Your task to perform on an android device: refresh tabs in the chrome app Image 0: 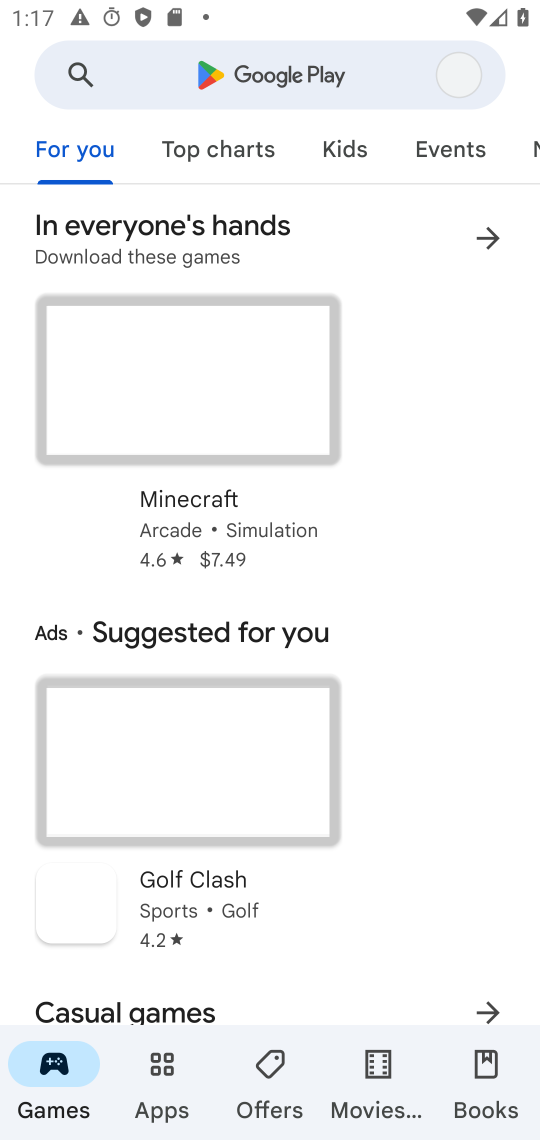
Step 0: press home button
Your task to perform on an android device: refresh tabs in the chrome app Image 1: 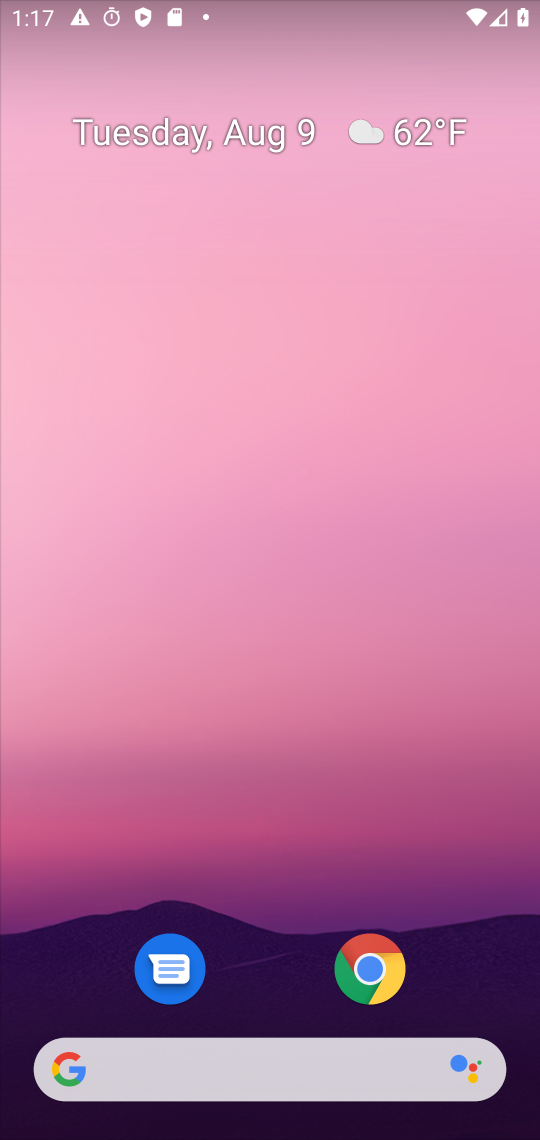
Step 1: click (381, 1009)
Your task to perform on an android device: refresh tabs in the chrome app Image 2: 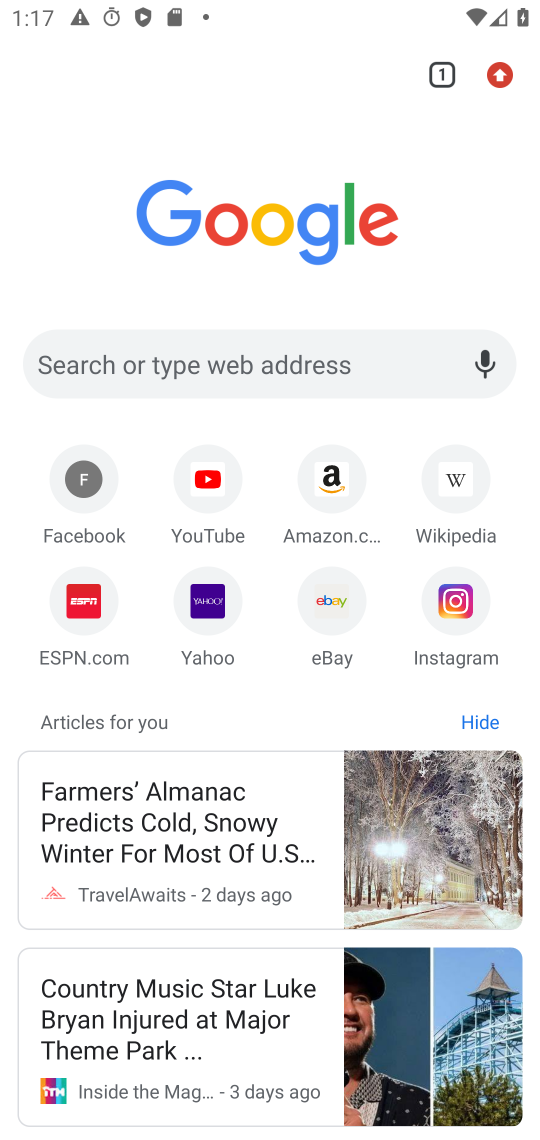
Step 2: click (496, 74)
Your task to perform on an android device: refresh tabs in the chrome app Image 3: 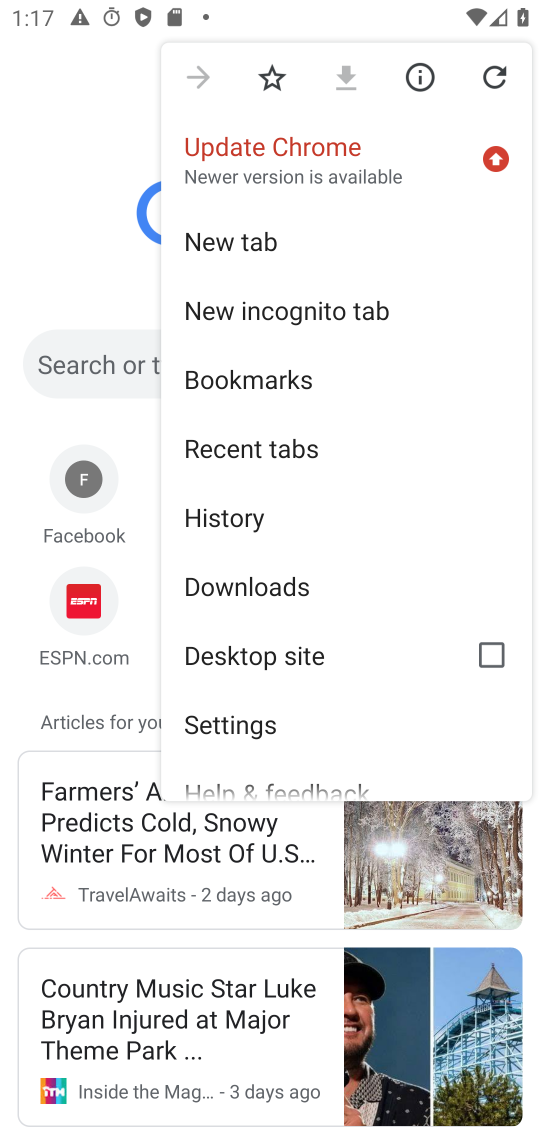
Step 3: click (492, 78)
Your task to perform on an android device: refresh tabs in the chrome app Image 4: 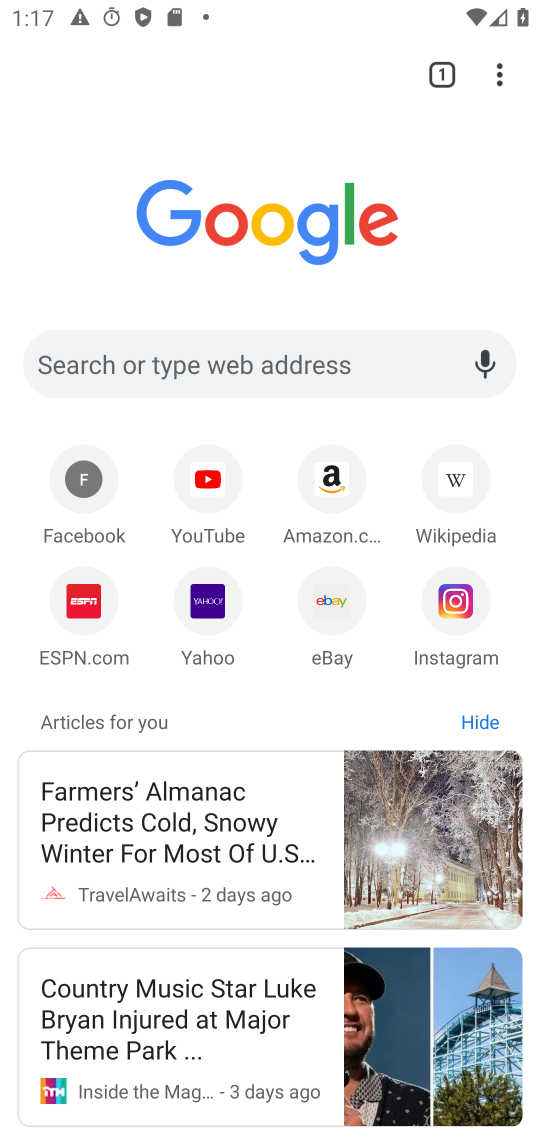
Step 4: task complete